Your task to perform on an android device: Search for the best Mexican restaurants Image 0: 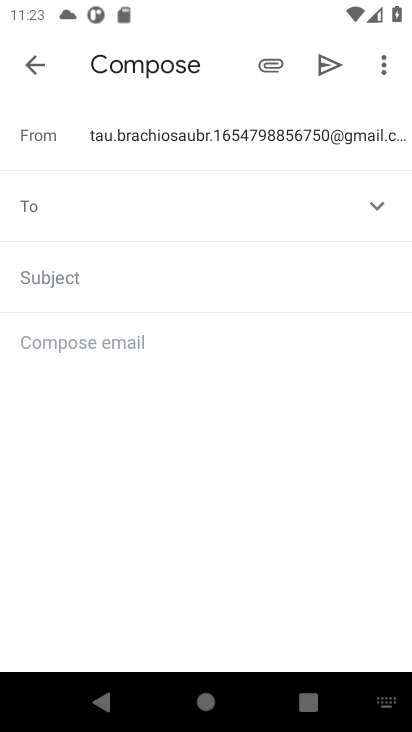
Step 0: press home button
Your task to perform on an android device: Search for the best Mexican restaurants Image 1: 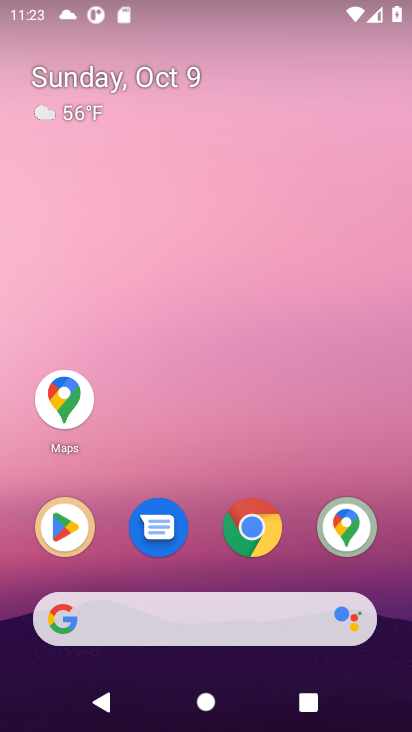
Step 1: click (255, 534)
Your task to perform on an android device: Search for the best Mexican restaurants Image 2: 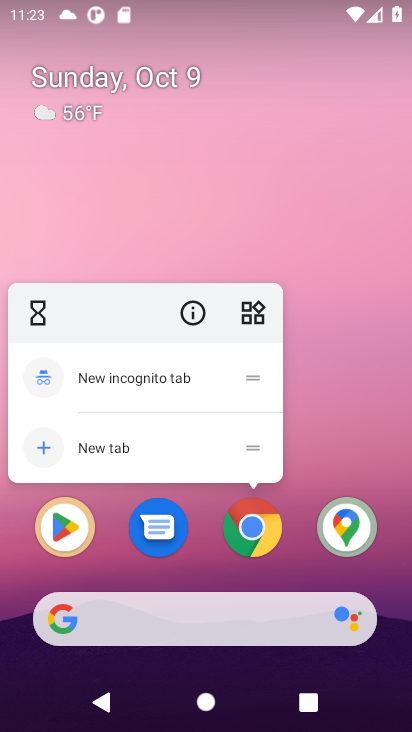
Step 2: click (251, 539)
Your task to perform on an android device: Search for the best Mexican restaurants Image 3: 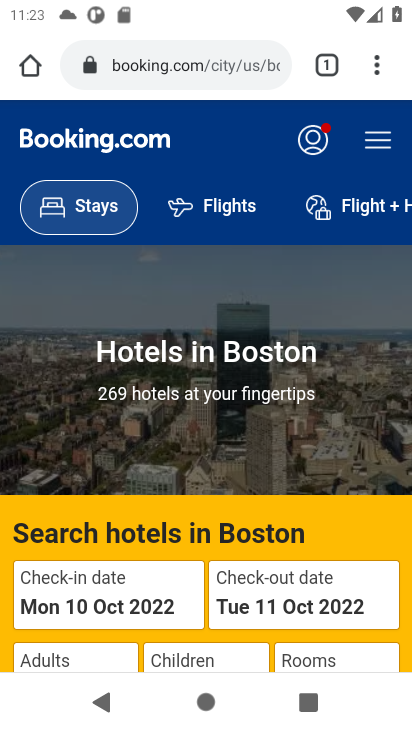
Step 3: click (185, 63)
Your task to perform on an android device: Search for the best Mexican restaurants Image 4: 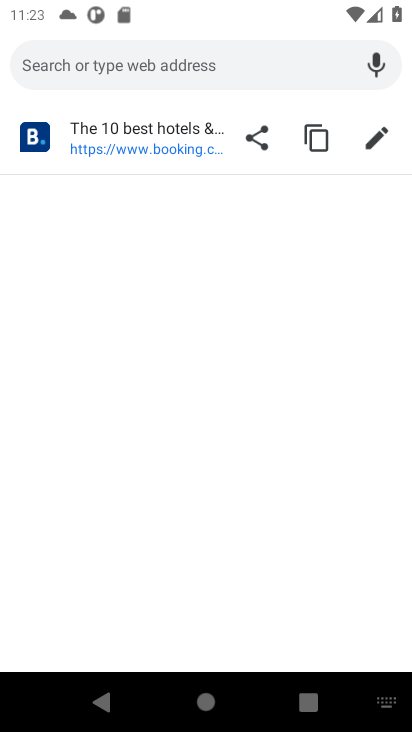
Step 4: type "best mexican restaurants"
Your task to perform on an android device: Search for the best Mexican restaurants Image 5: 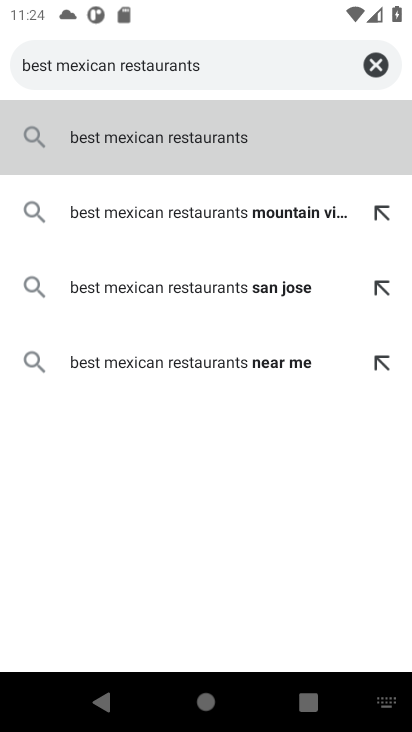
Step 5: click (144, 137)
Your task to perform on an android device: Search for the best Mexican restaurants Image 6: 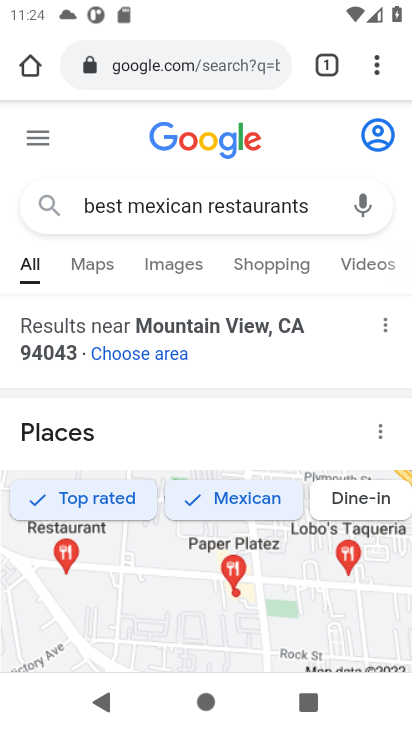
Step 6: task complete